Your task to perform on an android device: Open Google Chrome and open the bookmarks view Image 0: 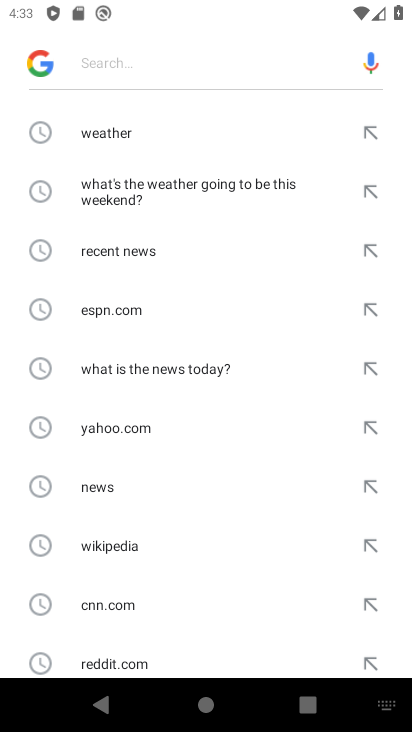
Step 0: press home button
Your task to perform on an android device: Open Google Chrome and open the bookmarks view Image 1: 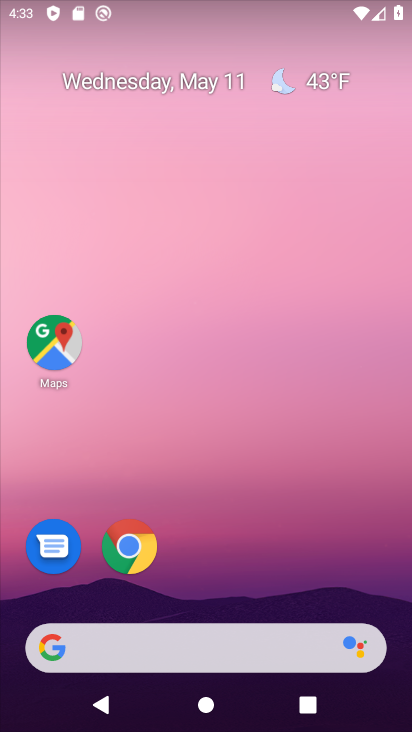
Step 1: click (137, 548)
Your task to perform on an android device: Open Google Chrome and open the bookmarks view Image 2: 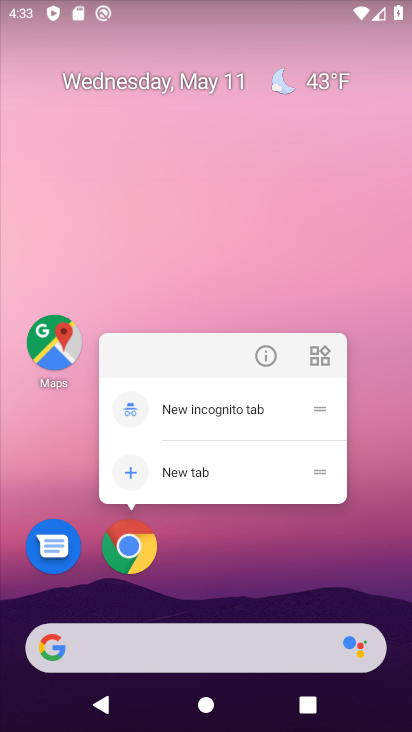
Step 2: click (143, 552)
Your task to perform on an android device: Open Google Chrome and open the bookmarks view Image 3: 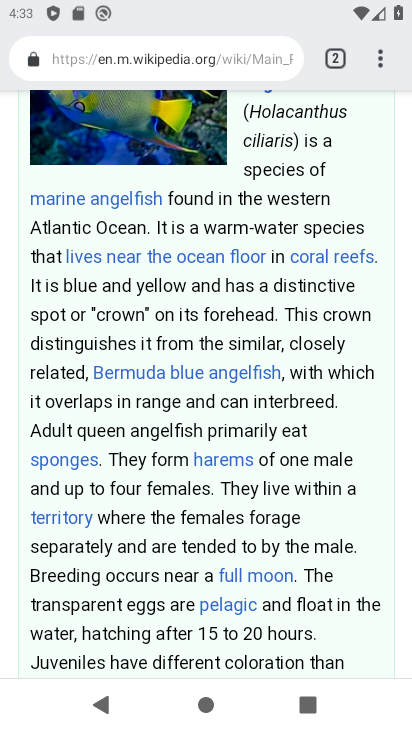
Step 3: click (380, 64)
Your task to perform on an android device: Open Google Chrome and open the bookmarks view Image 4: 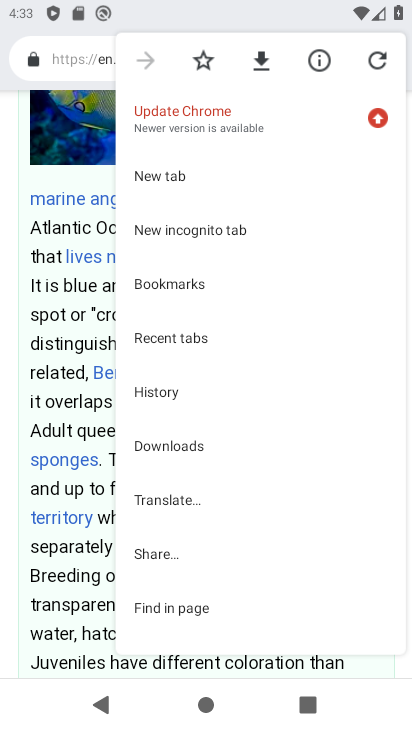
Step 4: click (204, 280)
Your task to perform on an android device: Open Google Chrome and open the bookmarks view Image 5: 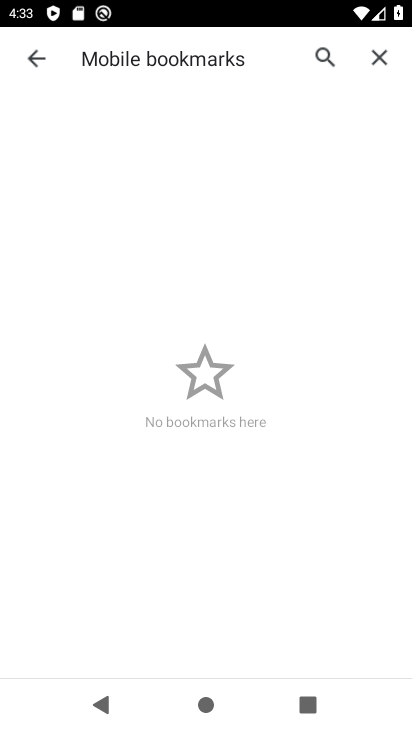
Step 5: task complete